Your task to perform on an android device: turn on showing notifications on the lock screen Image 0: 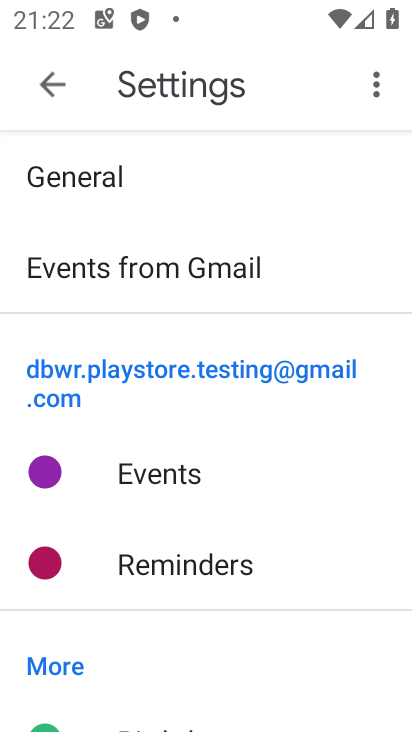
Step 0: press back button
Your task to perform on an android device: turn on showing notifications on the lock screen Image 1: 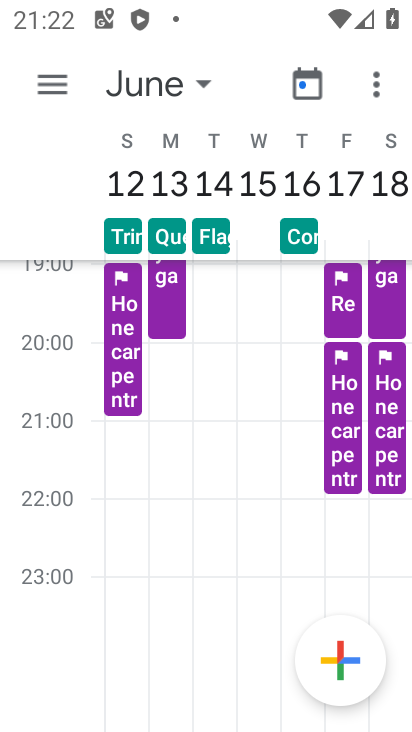
Step 1: press back button
Your task to perform on an android device: turn on showing notifications on the lock screen Image 2: 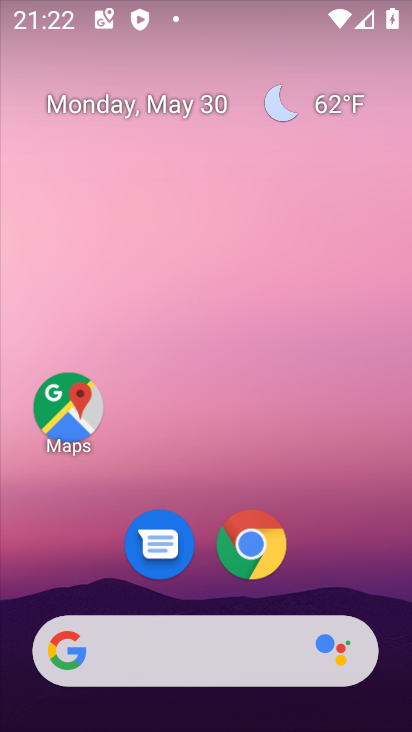
Step 2: drag from (324, 566) to (246, 223)
Your task to perform on an android device: turn on showing notifications on the lock screen Image 3: 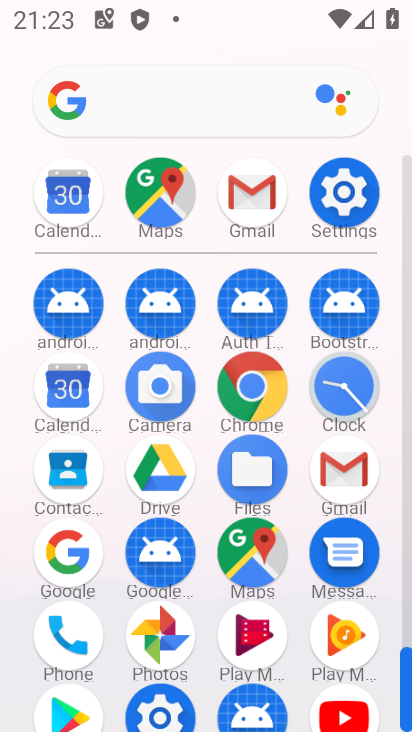
Step 3: click (346, 185)
Your task to perform on an android device: turn on showing notifications on the lock screen Image 4: 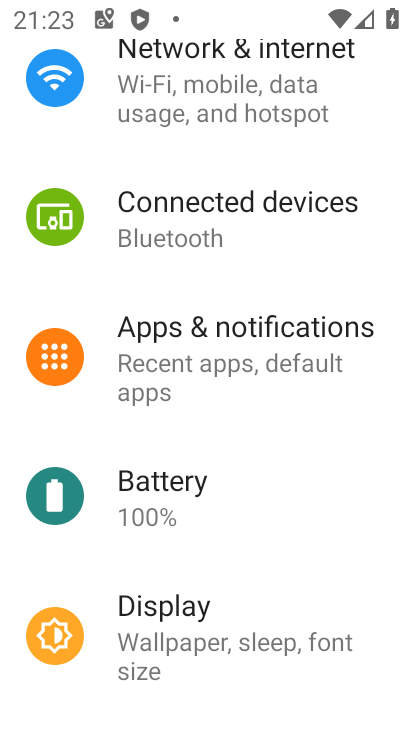
Step 4: click (205, 324)
Your task to perform on an android device: turn on showing notifications on the lock screen Image 5: 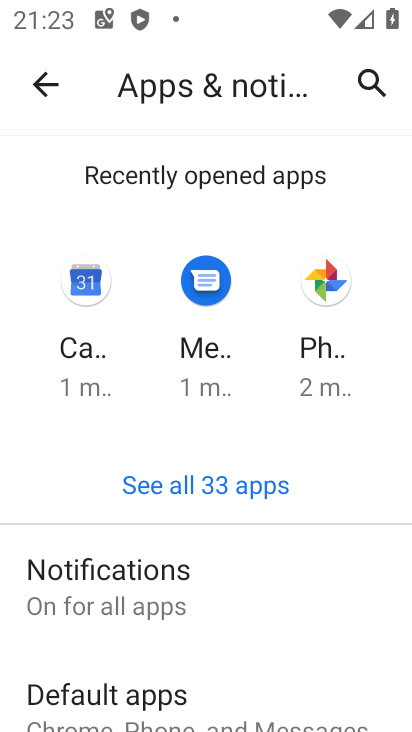
Step 5: drag from (217, 605) to (220, 488)
Your task to perform on an android device: turn on showing notifications on the lock screen Image 6: 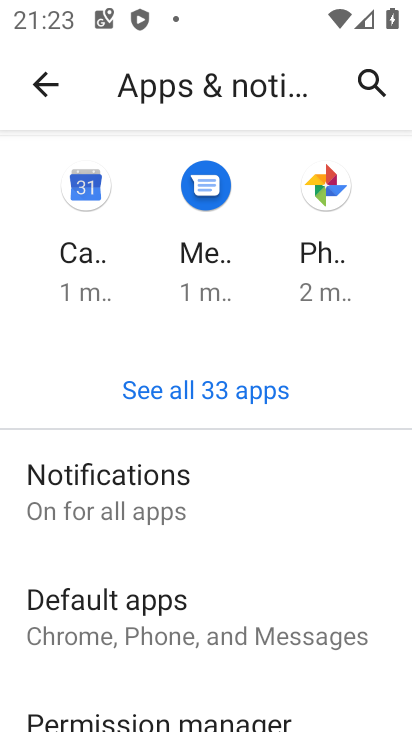
Step 6: click (144, 478)
Your task to perform on an android device: turn on showing notifications on the lock screen Image 7: 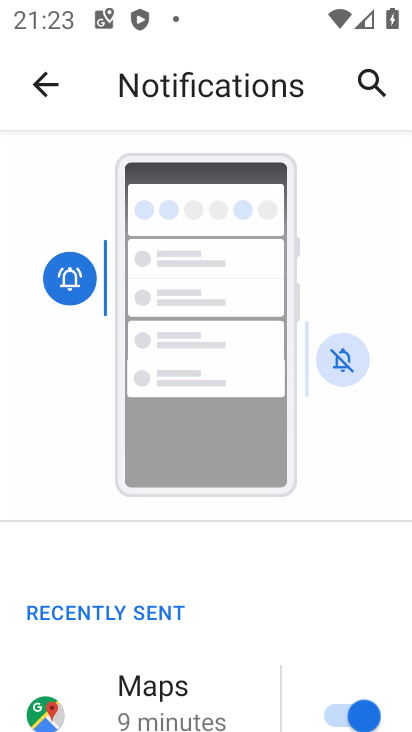
Step 7: drag from (208, 592) to (230, 420)
Your task to perform on an android device: turn on showing notifications on the lock screen Image 8: 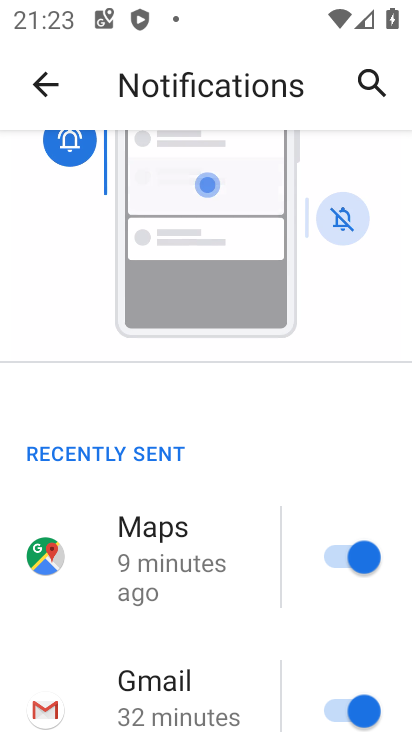
Step 8: drag from (191, 632) to (258, 420)
Your task to perform on an android device: turn on showing notifications on the lock screen Image 9: 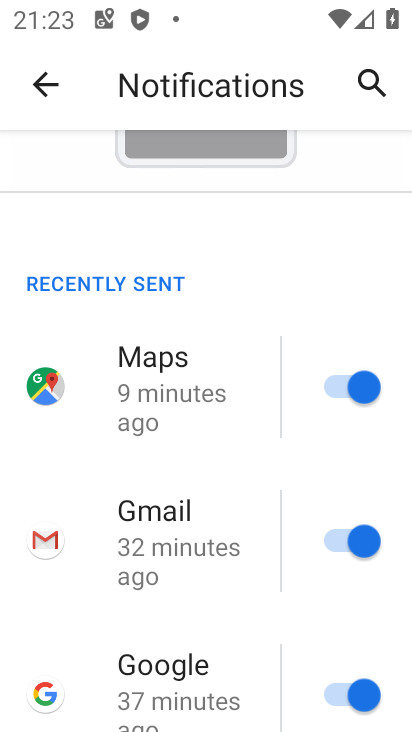
Step 9: drag from (211, 599) to (270, 352)
Your task to perform on an android device: turn on showing notifications on the lock screen Image 10: 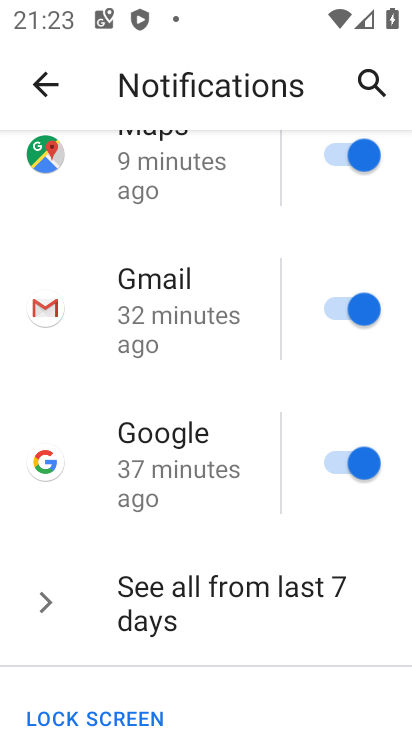
Step 10: drag from (214, 624) to (214, 425)
Your task to perform on an android device: turn on showing notifications on the lock screen Image 11: 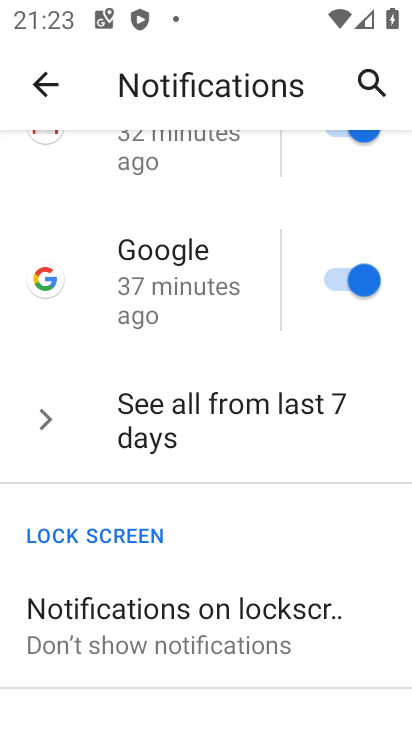
Step 11: drag from (252, 561) to (269, 449)
Your task to perform on an android device: turn on showing notifications on the lock screen Image 12: 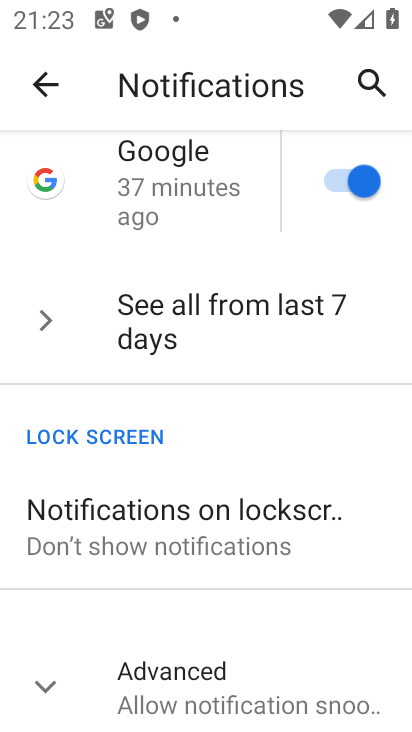
Step 12: click (276, 503)
Your task to perform on an android device: turn on showing notifications on the lock screen Image 13: 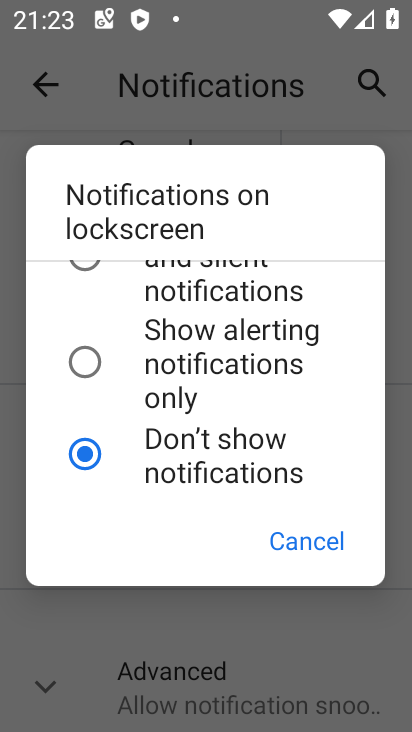
Step 13: drag from (256, 351) to (249, 460)
Your task to perform on an android device: turn on showing notifications on the lock screen Image 14: 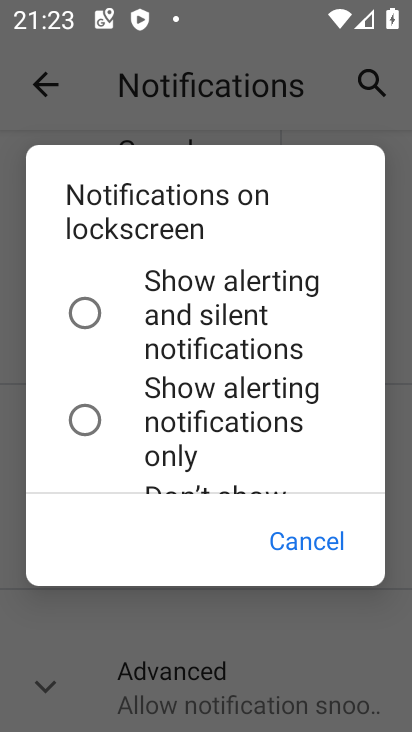
Step 14: click (82, 320)
Your task to perform on an android device: turn on showing notifications on the lock screen Image 15: 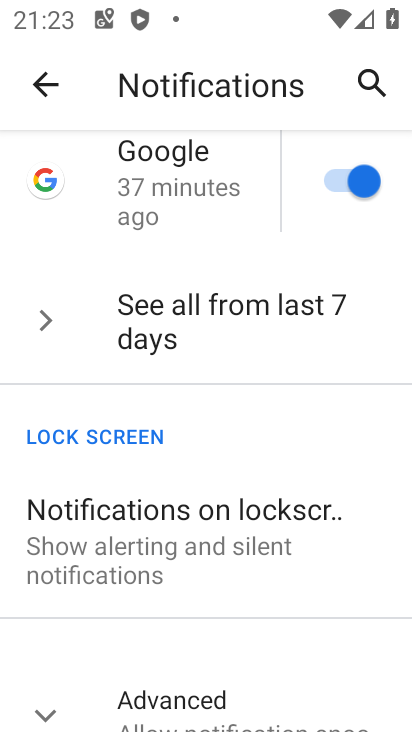
Step 15: task complete